Your task to perform on an android device: Search for vegetarian restaurants on Maps Image 0: 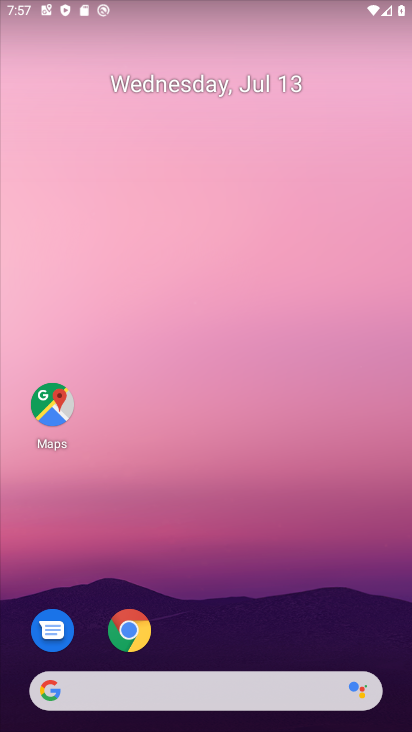
Step 0: drag from (358, 619) to (375, 77)
Your task to perform on an android device: Search for vegetarian restaurants on Maps Image 1: 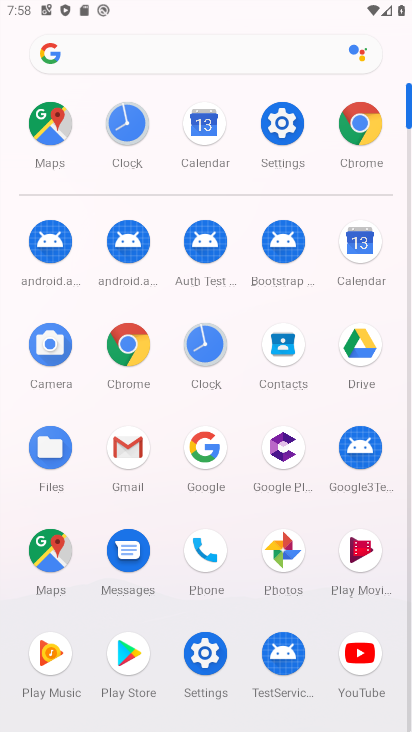
Step 1: click (50, 558)
Your task to perform on an android device: Search for vegetarian restaurants on Maps Image 2: 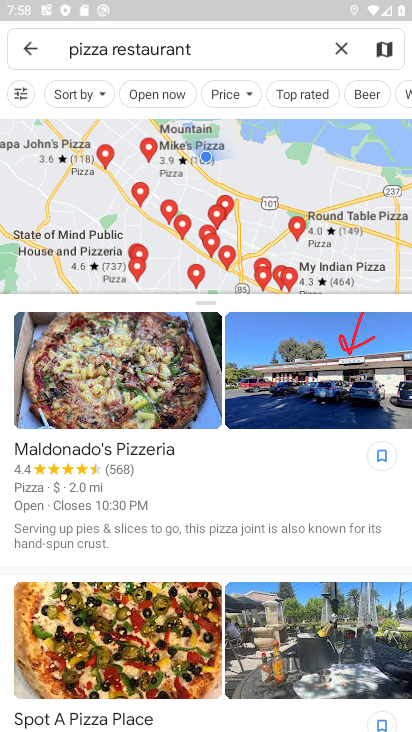
Step 2: press back button
Your task to perform on an android device: Search for vegetarian restaurants on Maps Image 3: 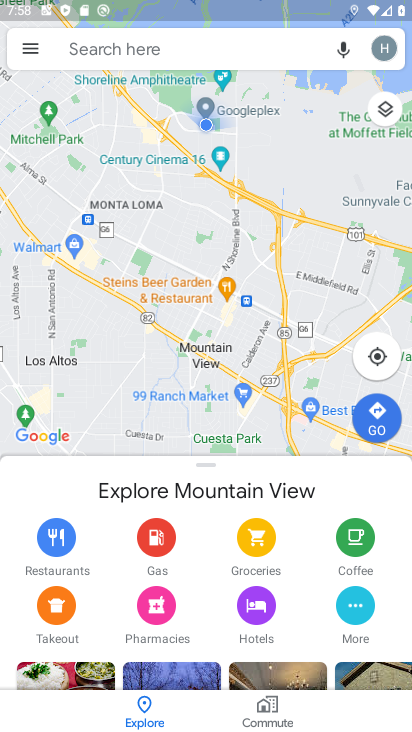
Step 3: click (194, 45)
Your task to perform on an android device: Search for vegetarian restaurants on Maps Image 4: 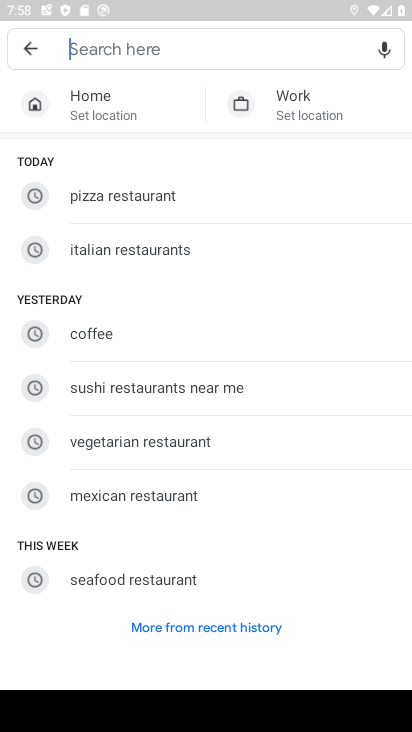
Step 4: type "vegetrain restaurants"
Your task to perform on an android device: Search for vegetarian restaurants on Maps Image 5: 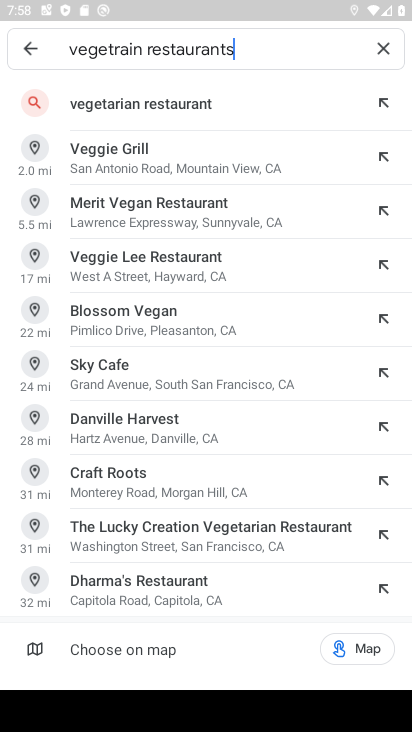
Step 5: click (298, 108)
Your task to perform on an android device: Search for vegetarian restaurants on Maps Image 6: 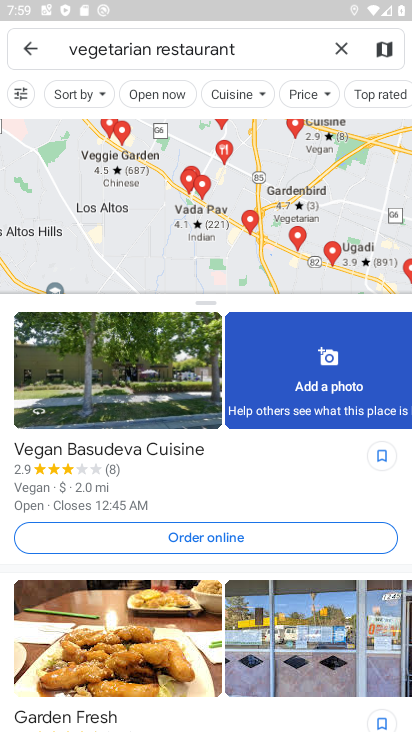
Step 6: task complete